Your task to perform on an android device: turn off notifications settings in the gmail app Image 0: 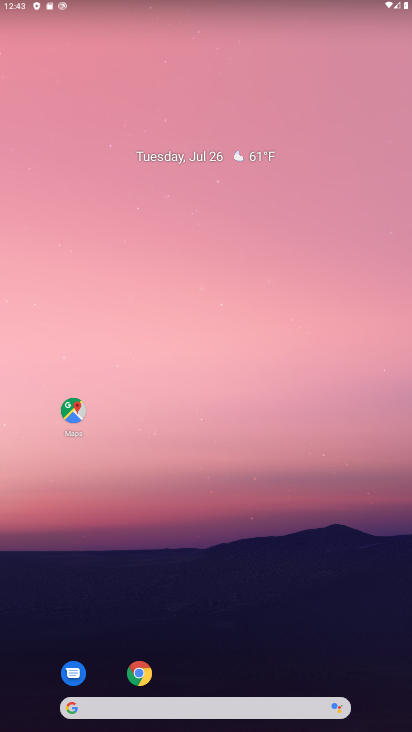
Step 0: drag from (201, 602) to (229, 242)
Your task to perform on an android device: turn off notifications settings in the gmail app Image 1: 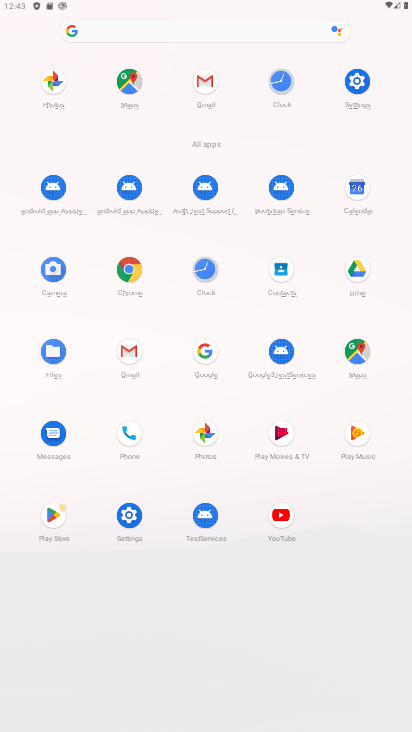
Step 1: click (130, 349)
Your task to perform on an android device: turn off notifications settings in the gmail app Image 2: 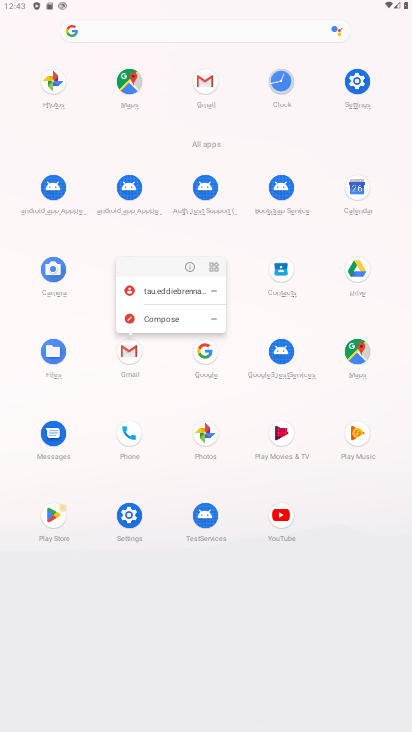
Step 2: click (187, 269)
Your task to perform on an android device: turn off notifications settings in the gmail app Image 3: 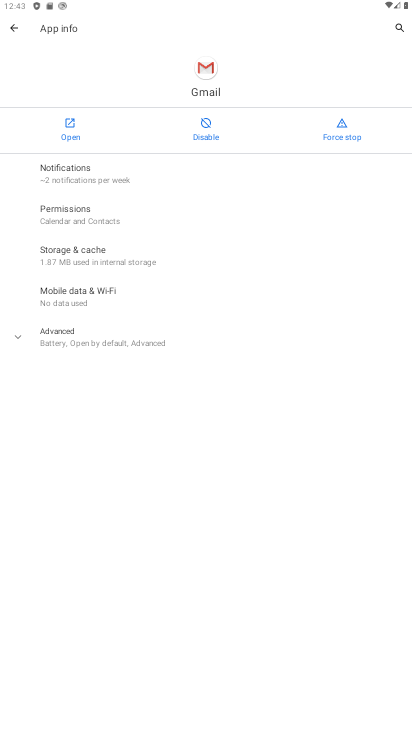
Step 3: click (62, 133)
Your task to perform on an android device: turn off notifications settings in the gmail app Image 4: 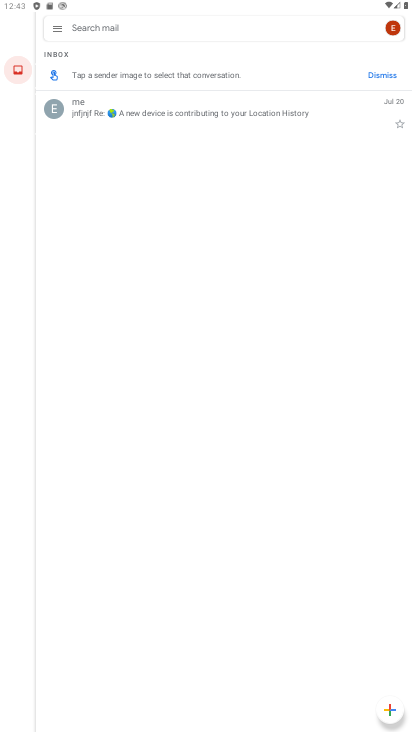
Step 4: click (53, 26)
Your task to perform on an android device: turn off notifications settings in the gmail app Image 5: 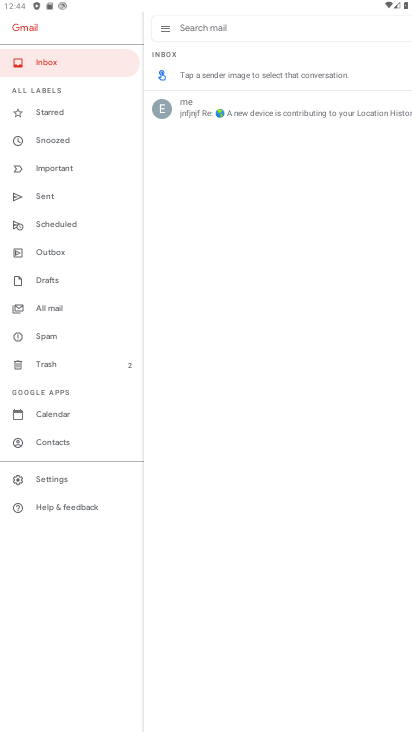
Step 5: click (51, 475)
Your task to perform on an android device: turn off notifications settings in the gmail app Image 6: 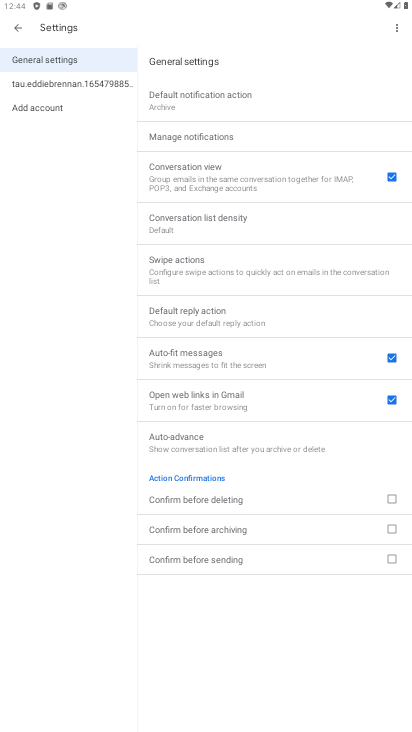
Step 6: click (101, 78)
Your task to perform on an android device: turn off notifications settings in the gmail app Image 7: 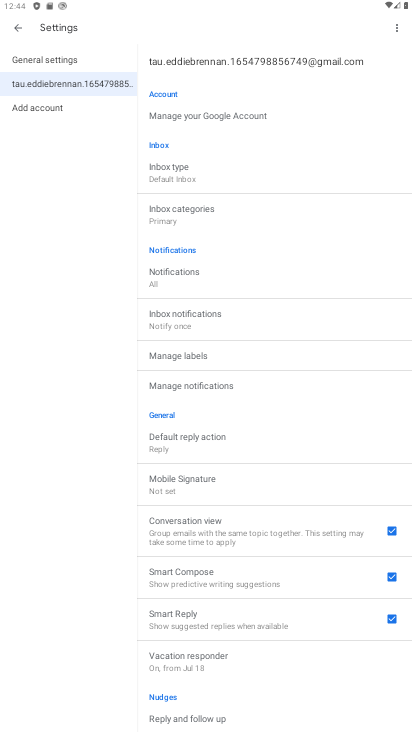
Step 7: click (184, 382)
Your task to perform on an android device: turn off notifications settings in the gmail app Image 8: 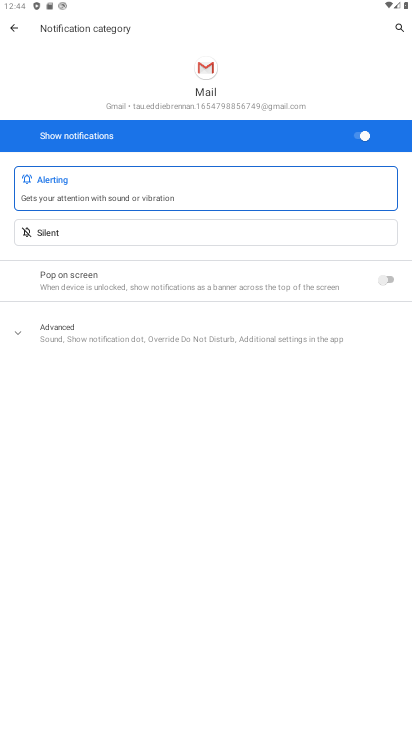
Step 8: click (360, 131)
Your task to perform on an android device: turn off notifications settings in the gmail app Image 9: 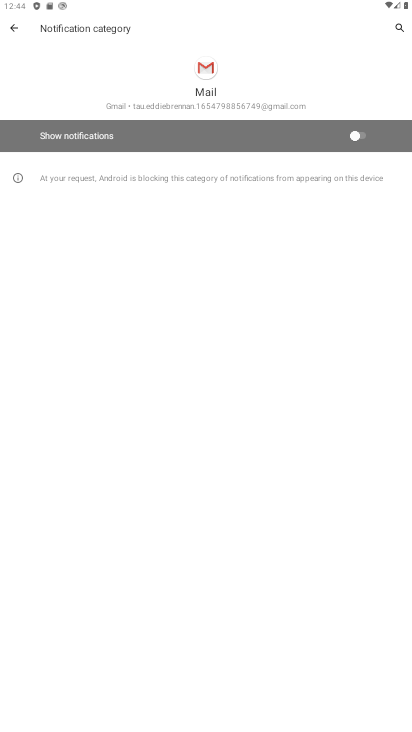
Step 9: task complete